Your task to perform on an android device: Open calendar and show me the first week of next month Image 0: 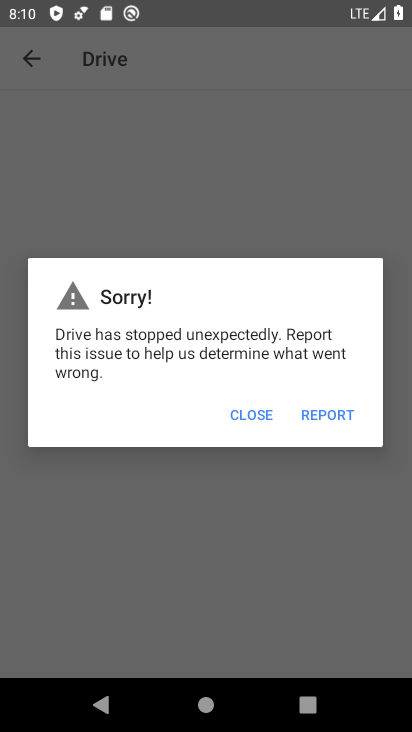
Step 0: click (230, 408)
Your task to perform on an android device: Open calendar and show me the first week of next month Image 1: 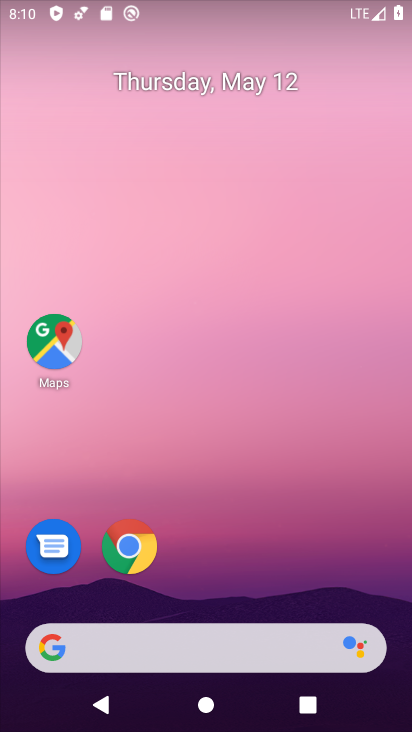
Step 1: drag from (231, 543) to (270, 41)
Your task to perform on an android device: Open calendar and show me the first week of next month Image 2: 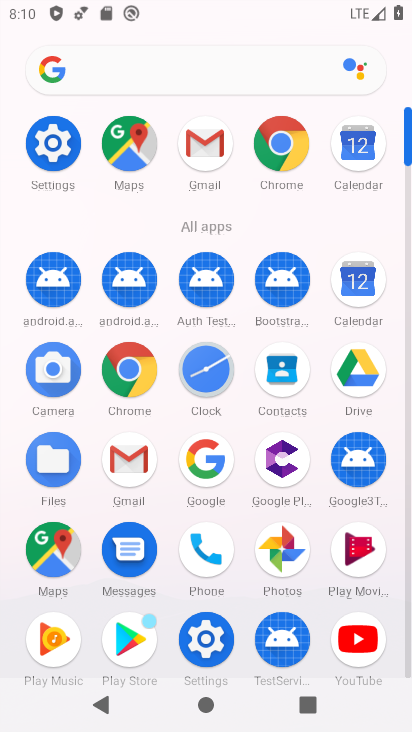
Step 2: click (372, 285)
Your task to perform on an android device: Open calendar and show me the first week of next month Image 3: 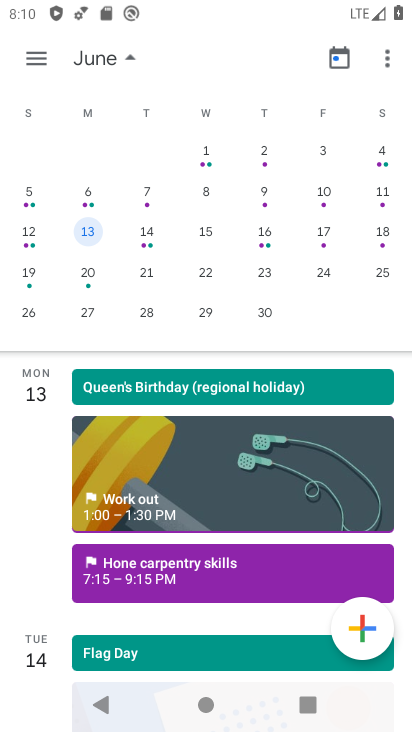
Step 3: click (204, 149)
Your task to perform on an android device: Open calendar and show me the first week of next month Image 4: 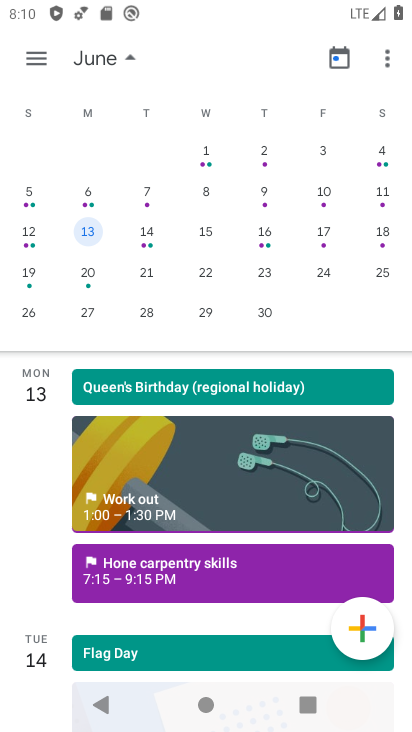
Step 4: click (206, 148)
Your task to perform on an android device: Open calendar and show me the first week of next month Image 5: 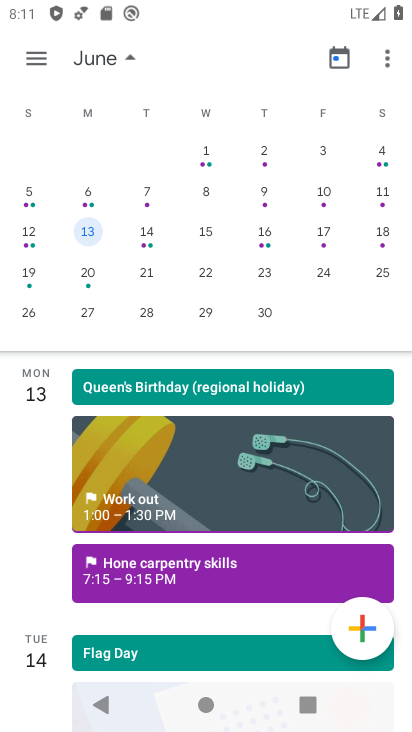
Step 5: click (209, 153)
Your task to perform on an android device: Open calendar and show me the first week of next month Image 6: 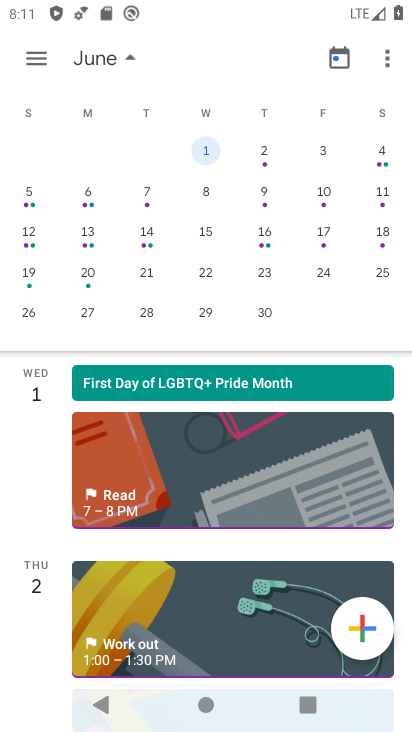
Step 6: task complete